Your task to perform on an android device: change the clock display to digital Image 0: 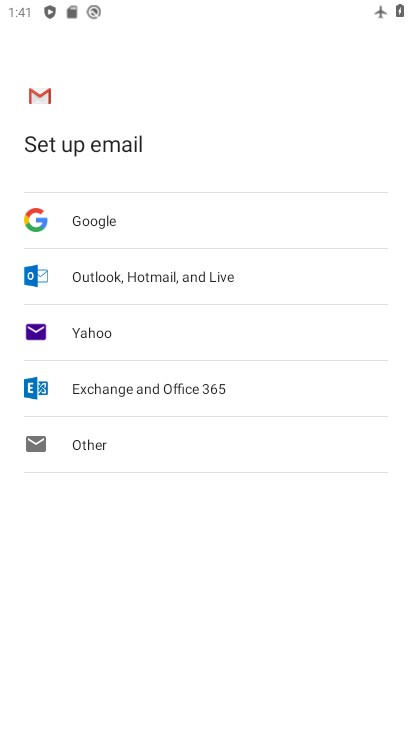
Step 0: press back button
Your task to perform on an android device: change the clock display to digital Image 1: 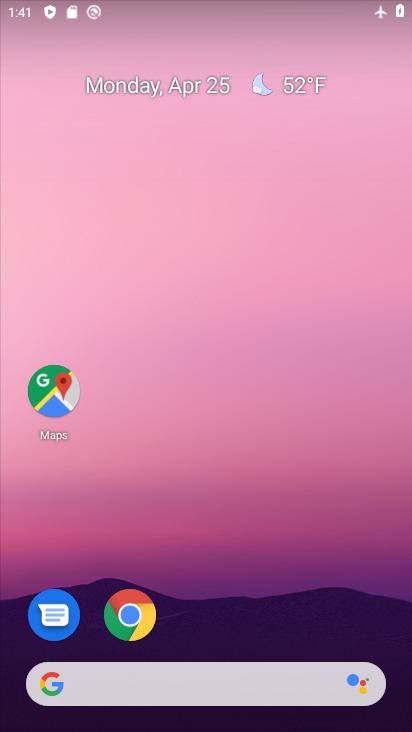
Step 1: drag from (224, 307) to (63, 42)
Your task to perform on an android device: change the clock display to digital Image 2: 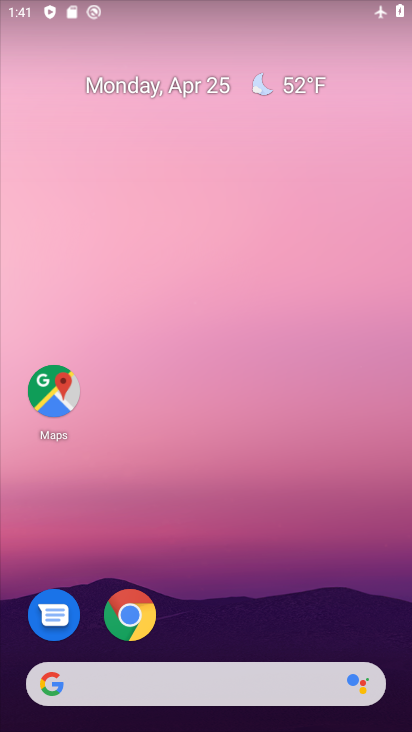
Step 2: drag from (198, 526) to (316, 7)
Your task to perform on an android device: change the clock display to digital Image 3: 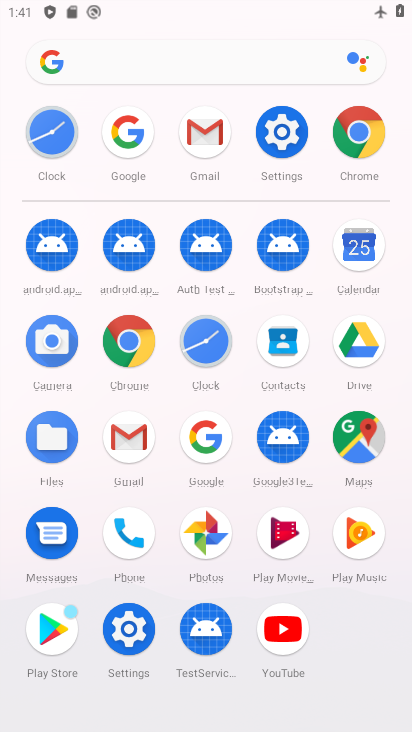
Step 3: click (207, 340)
Your task to perform on an android device: change the clock display to digital Image 4: 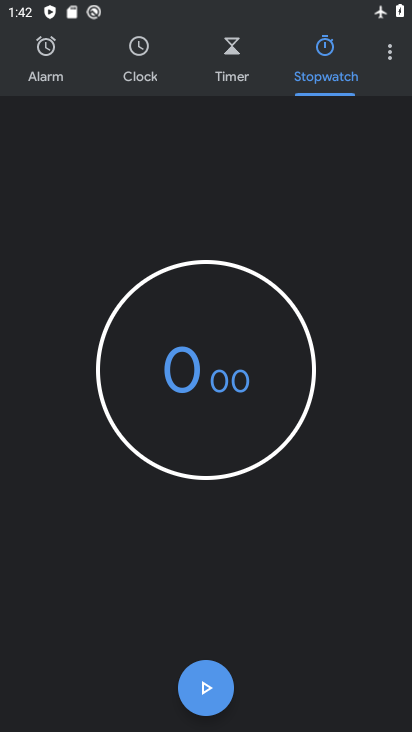
Step 4: click (392, 54)
Your task to perform on an android device: change the clock display to digital Image 5: 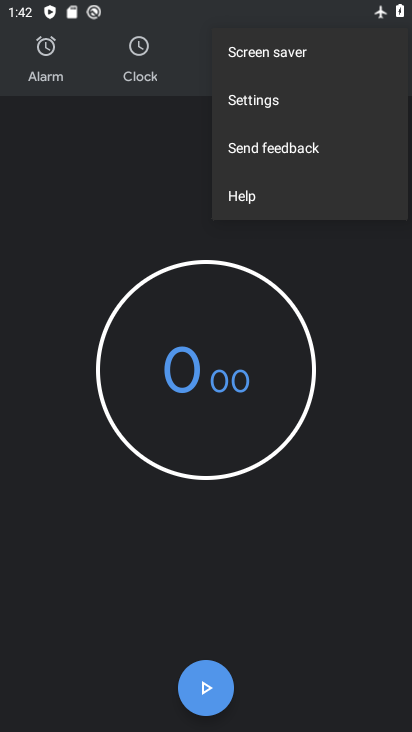
Step 5: click (271, 104)
Your task to perform on an android device: change the clock display to digital Image 6: 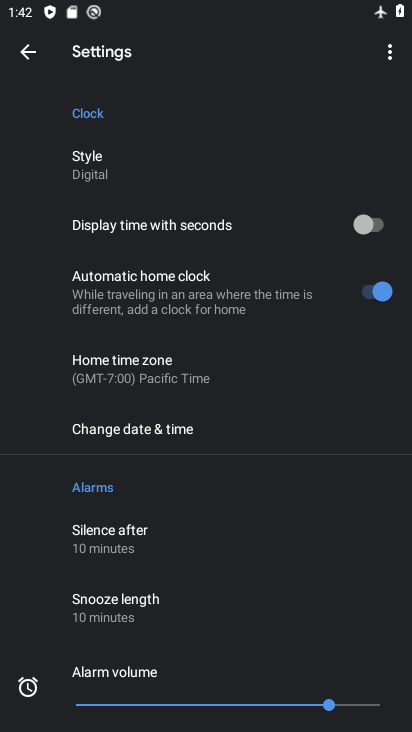
Step 6: click (161, 166)
Your task to perform on an android device: change the clock display to digital Image 7: 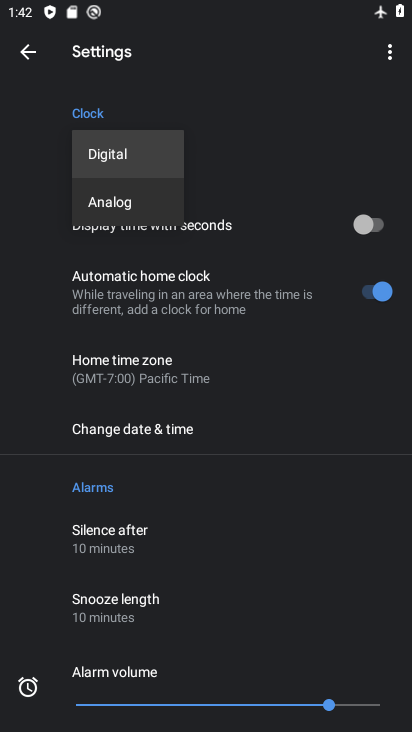
Step 7: click (161, 166)
Your task to perform on an android device: change the clock display to digital Image 8: 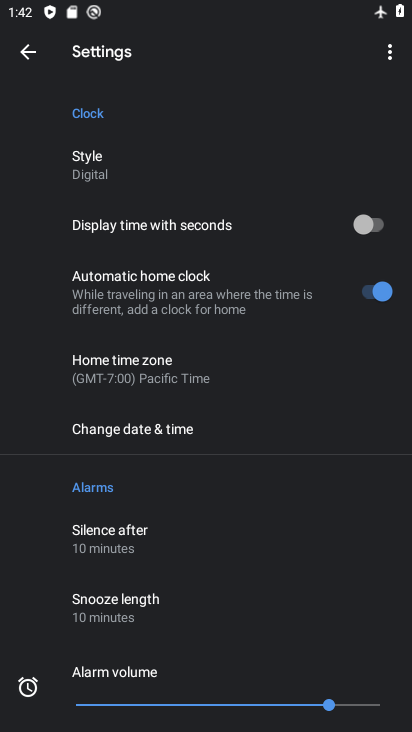
Step 8: task complete